Your task to perform on an android device: Toggle the flashlight Image 0: 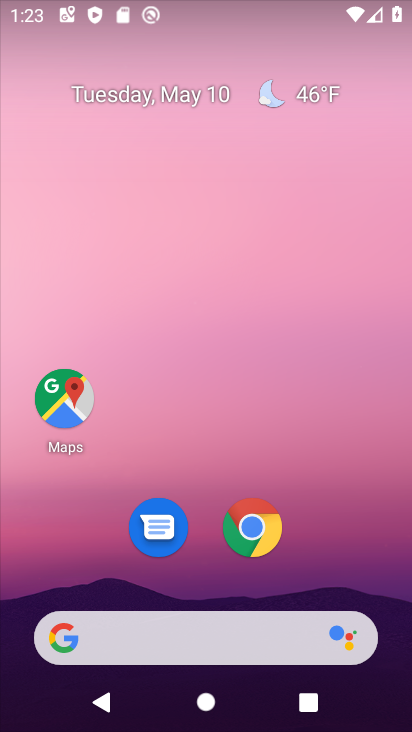
Step 0: drag from (198, 9) to (217, 579)
Your task to perform on an android device: Toggle the flashlight Image 1: 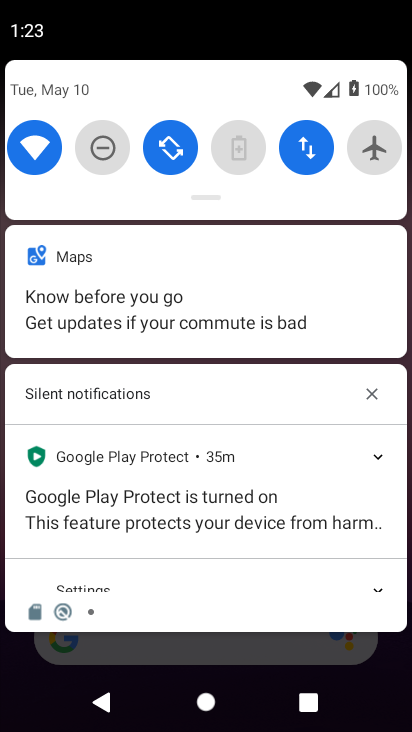
Step 1: task complete